Your task to perform on an android device: Go to privacy settings Image 0: 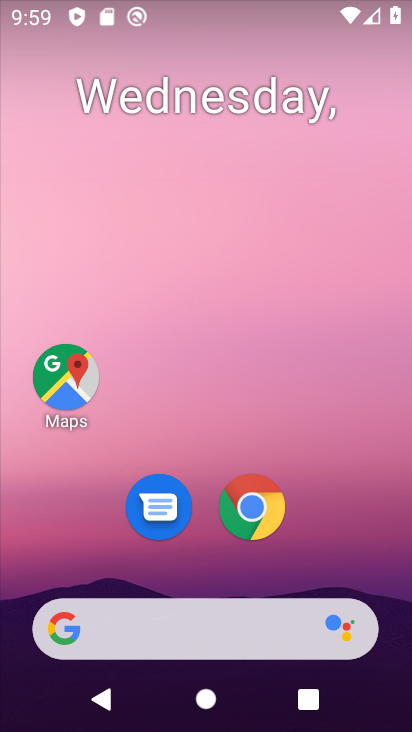
Step 0: drag from (226, 661) to (291, 301)
Your task to perform on an android device: Go to privacy settings Image 1: 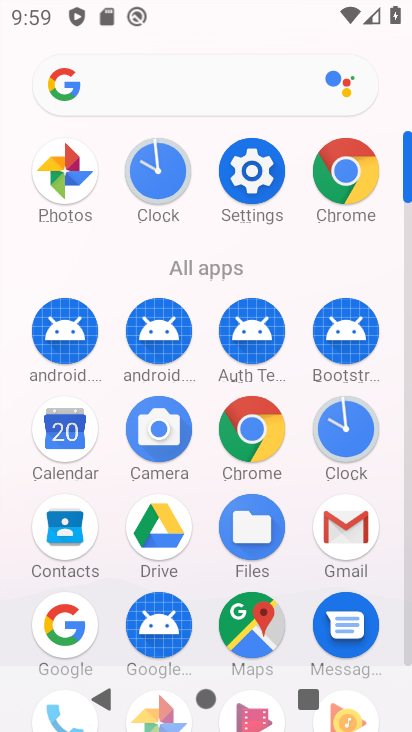
Step 1: click (244, 195)
Your task to perform on an android device: Go to privacy settings Image 2: 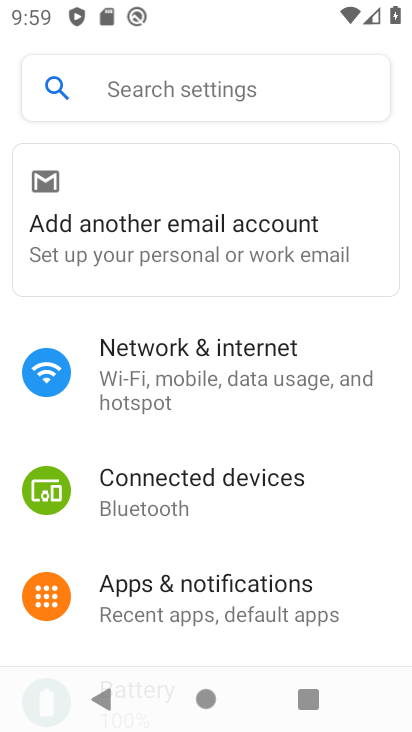
Step 2: drag from (110, 451) to (151, 275)
Your task to perform on an android device: Go to privacy settings Image 3: 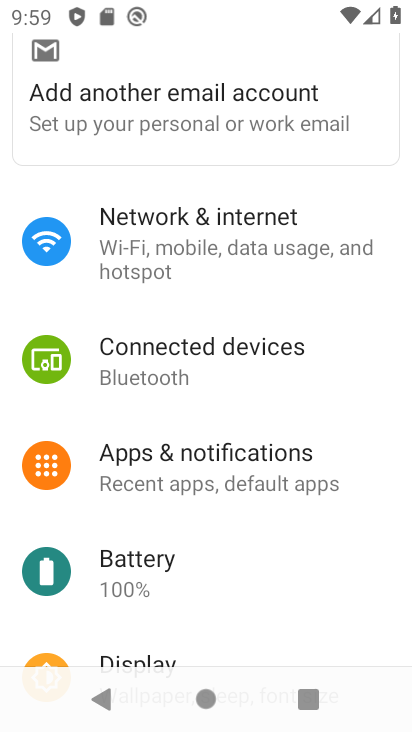
Step 3: drag from (145, 558) to (163, 422)
Your task to perform on an android device: Go to privacy settings Image 4: 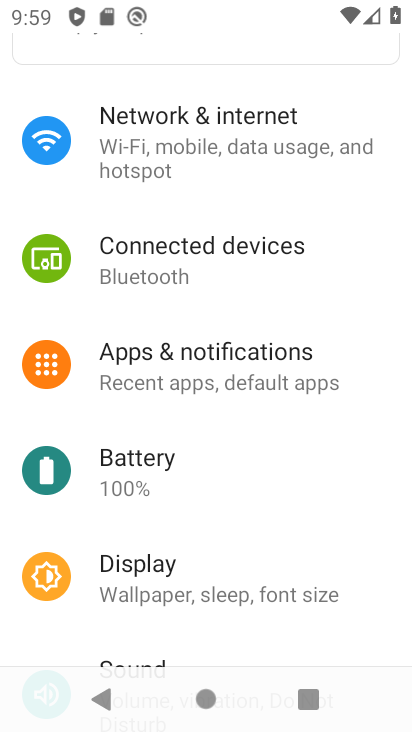
Step 4: drag from (127, 534) to (147, 409)
Your task to perform on an android device: Go to privacy settings Image 5: 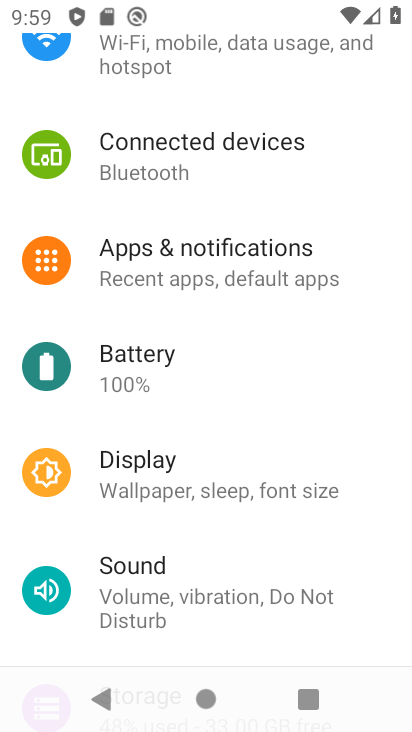
Step 5: drag from (172, 495) to (145, 370)
Your task to perform on an android device: Go to privacy settings Image 6: 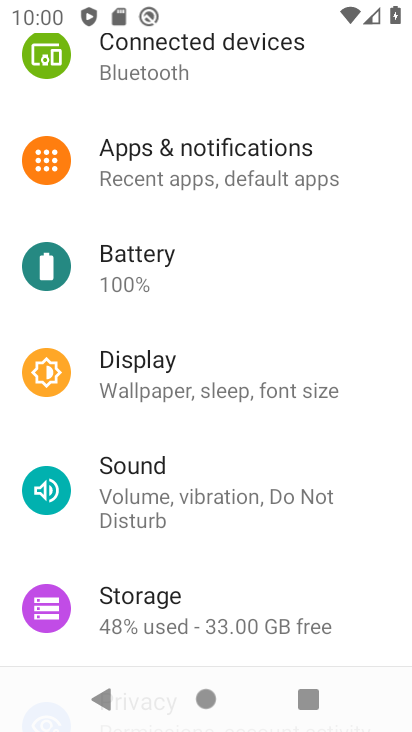
Step 6: drag from (144, 532) to (152, 332)
Your task to perform on an android device: Go to privacy settings Image 7: 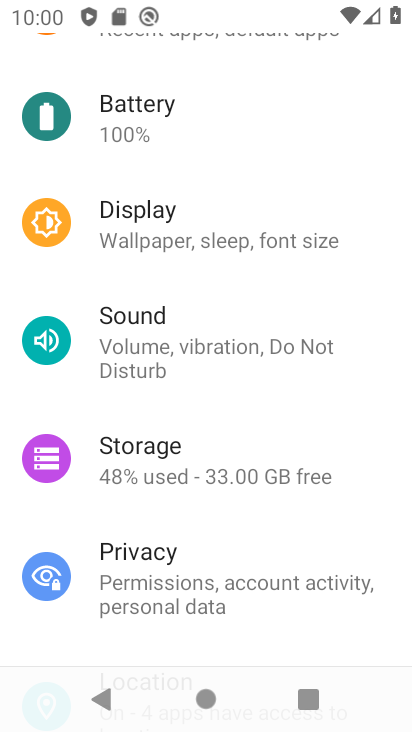
Step 7: click (128, 545)
Your task to perform on an android device: Go to privacy settings Image 8: 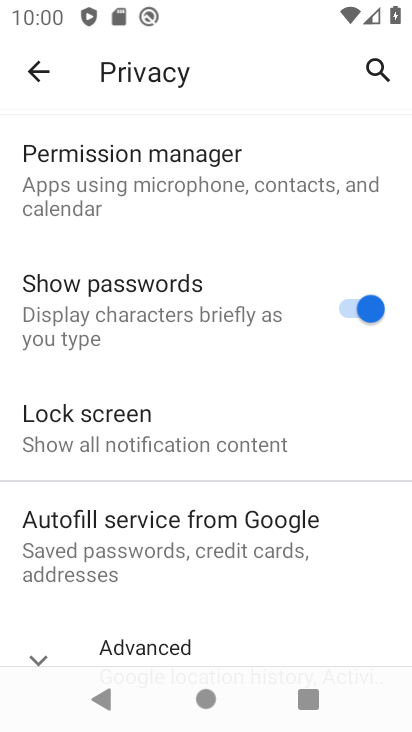
Step 8: click (40, 659)
Your task to perform on an android device: Go to privacy settings Image 9: 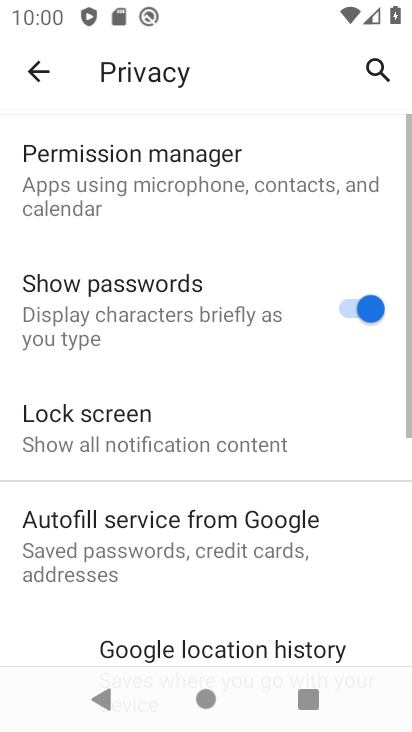
Step 9: task complete